Your task to perform on an android device: snooze an email in the gmail app Image 0: 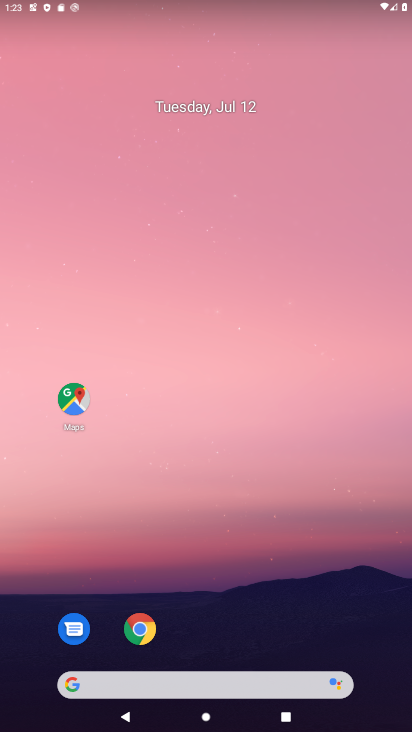
Step 0: drag from (313, 521) to (359, 275)
Your task to perform on an android device: snooze an email in the gmail app Image 1: 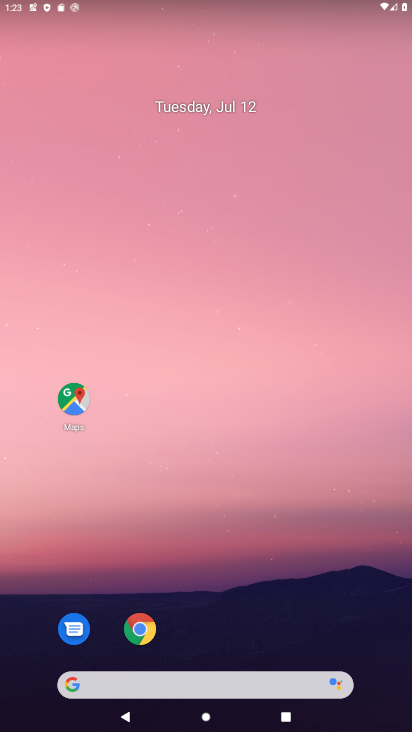
Step 1: drag from (213, 568) to (225, 150)
Your task to perform on an android device: snooze an email in the gmail app Image 2: 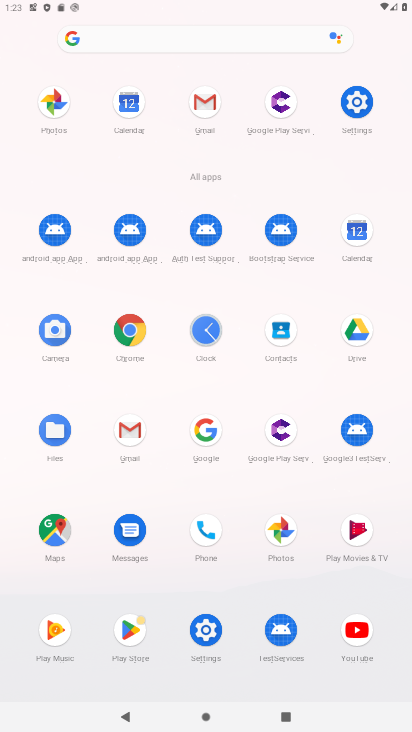
Step 2: click (207, 102)
Your task to perform on an android device: snooze an email in the gmail app Image 3: 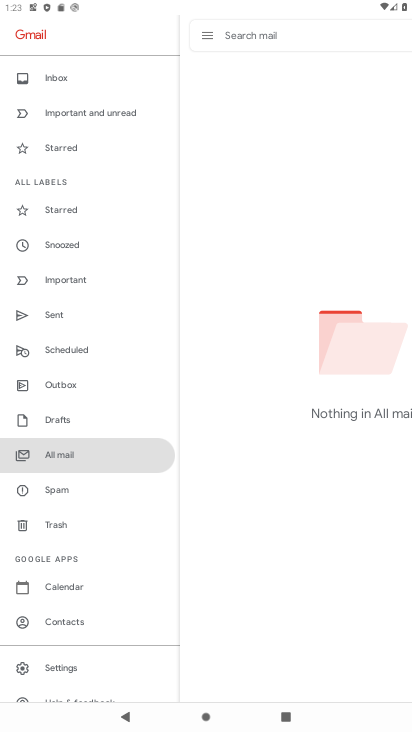
Step 3: task complete